Your task to perform on an android device: turn off wifi Image 0: 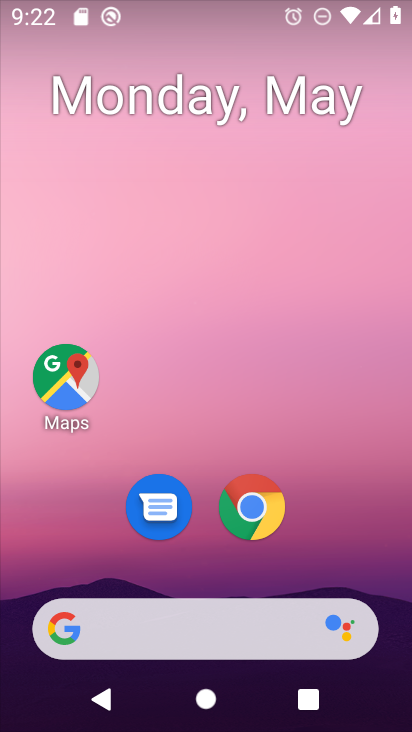
Step 0: drag from (188, 575) to (239, 13)
Your task to perform on an android device: turn off wifi Image 1: 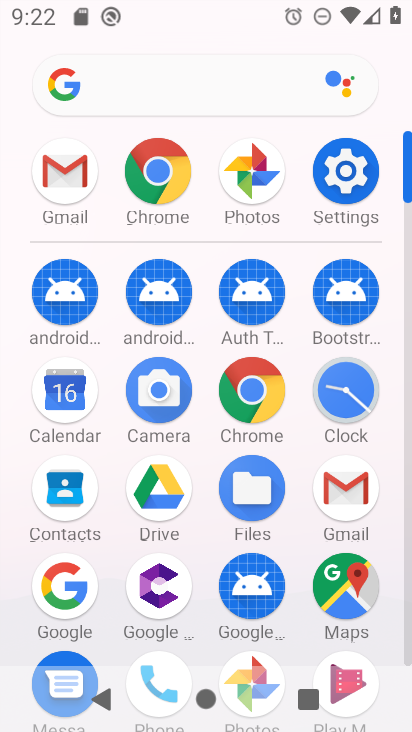
Step 1: click (338, 189)
Your task to perform on an android device: turn off wifi Image 2: 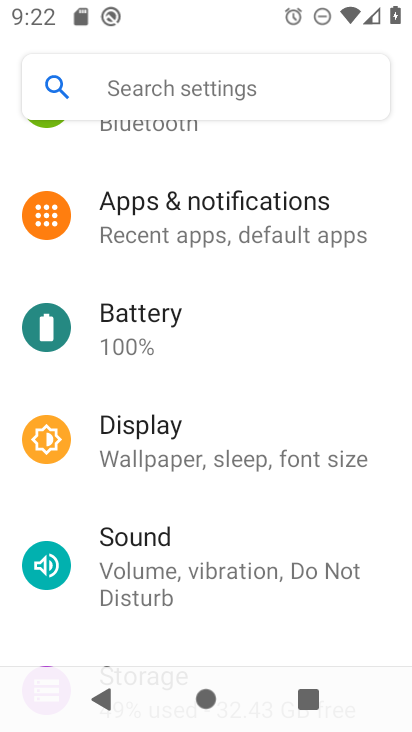
Step 2: drag from (208, 236) to (208, 535)
Your task to perform on an android device: turn off wifi Image 3: 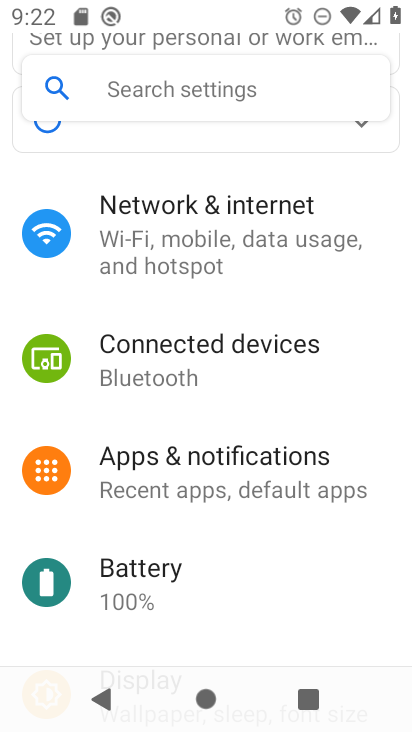
Step 3: click (197, 255)
Your task to perform on an android device: turn off wifi Image 4: 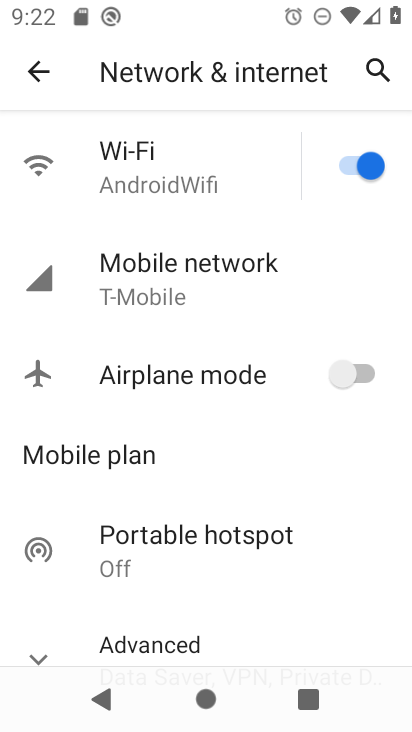
Step 4: click (341, 157)
Your task to perform on an android device: turn off wifi Image 5: 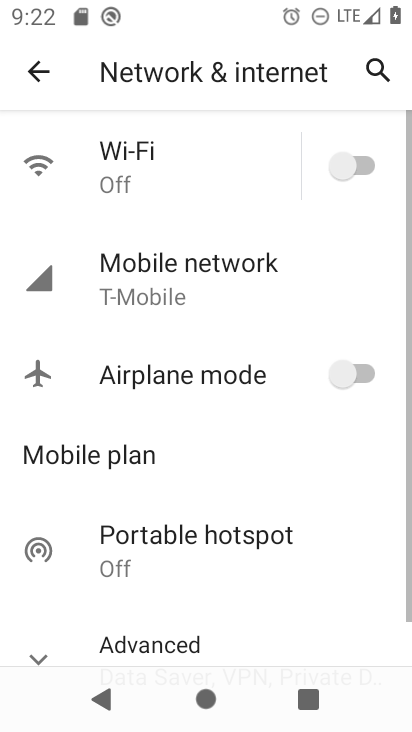
Step 5: task complete